Your task to perform on an android device: toggle notifications settings in the gmail app Image 0: 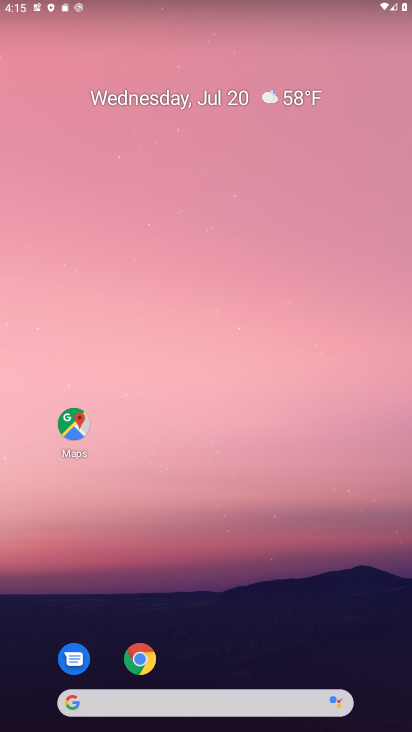
Step 0: drag from (221, 682) to (137, 67)
Your task to perform on an android device: toggle notifications settings in the gmail app Image 1: 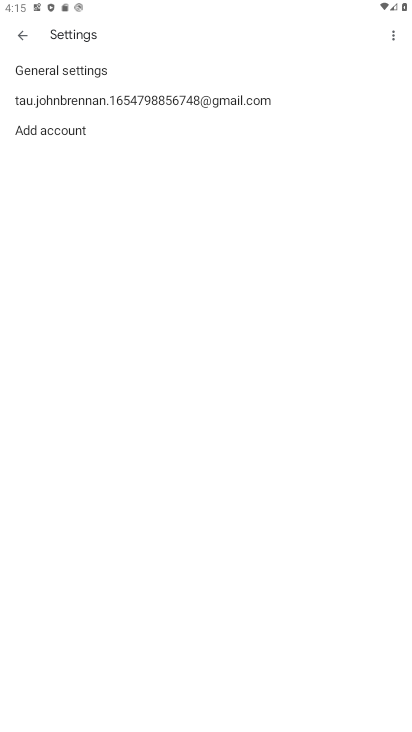
Step 1: click (75, 99)
Your task to perform on an android device: toggle notifications settings in the gmail app Image 2: 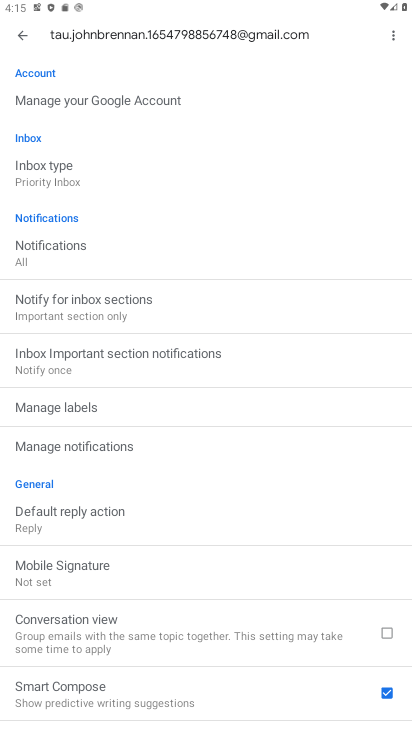
Step 2: drag from (97, 482) to (38, 205)
Your task to perform on an android device: toggle notifications settings in the gmail app Image 3: 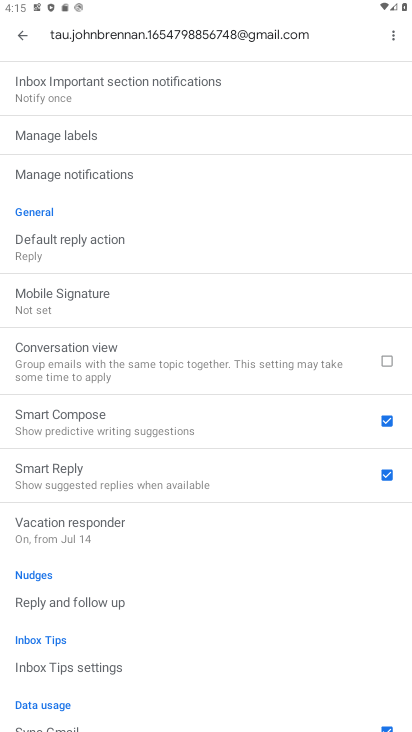
Step 3: drag from (123, 527) to (107, 244)
Your task to perform on an android device: toggle notifications settings in the gmail app Image 4: 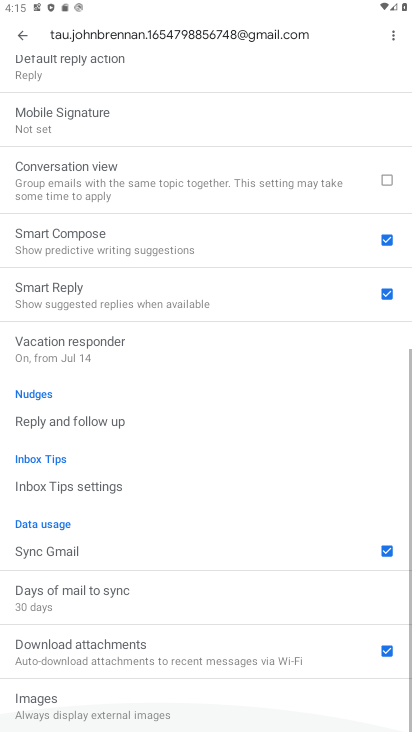
Step 4: drag from (142, 480) to (142, 234)
Your task to perform on an android device: toggle notifications settings in the gmail app Image 5: 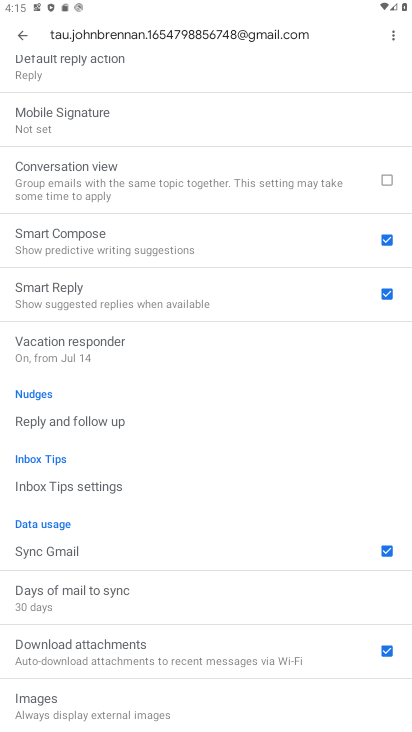
Step 5: drag from (77, 168) to (173, 483)
Your task to perform on an android device: toggle notifications settings in the gmail app Image 6: 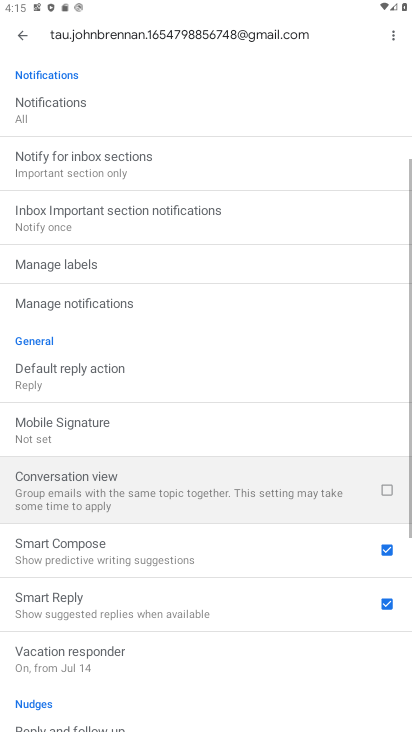
Step 6: drag from (94, 261) to (140, 460)
Your task to perform on an android device: toggle notifications settings in the gmail app Image 7: 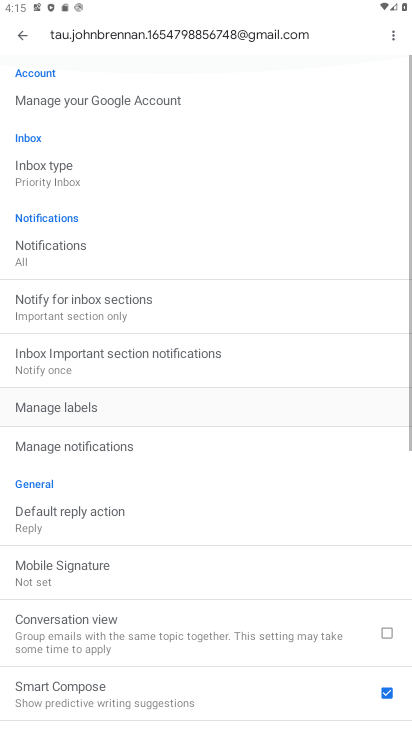
Step 7: drag from (91, 289) to (151, 482)
Your task to perform on an android device: toggle notifications settings in the gmail app Image 8: 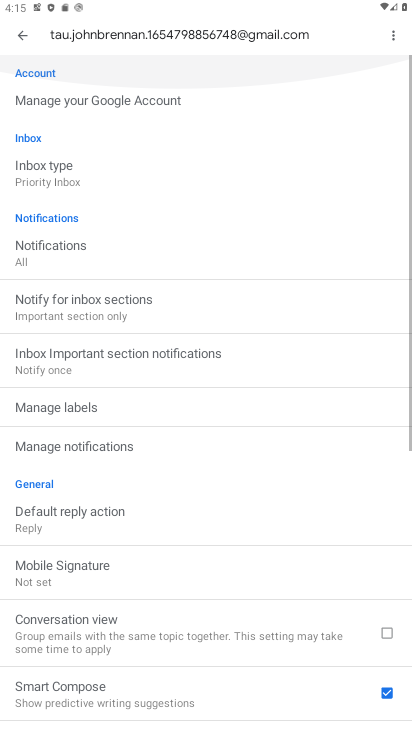
Step 8: drag from (109, 264) to (136, 460)
Your task to perform on an android device: toggle notifications settings in the gmail app Image 9: 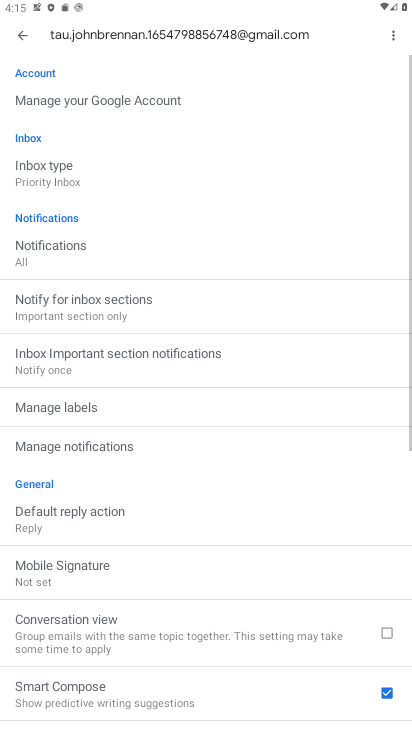
Step 9: click (23, 249)
Your task to perform on an android device: toggle notifications settings in the gmail app Image 10: 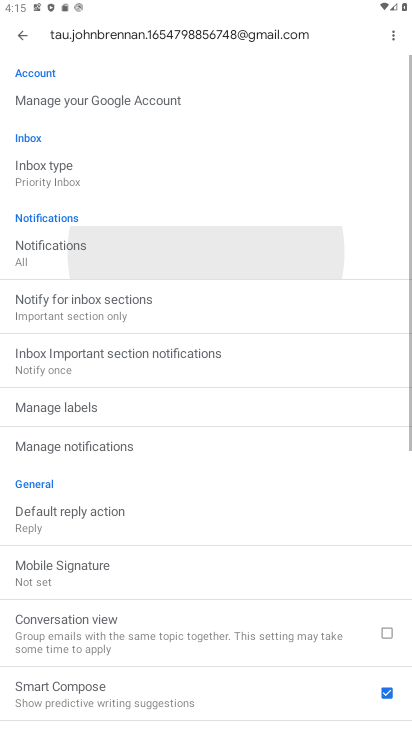
Step 10: click (27, 249)
Your task to perform on an android device: toggle notifications settings in the gmail app Image 11: 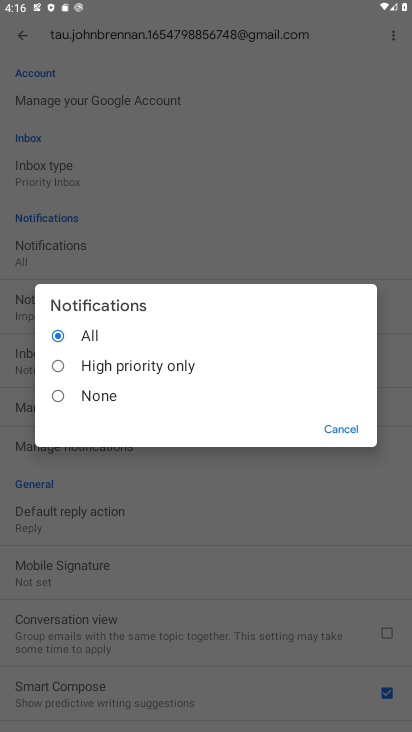
Step 11: click (58, 353)
Your task to perform on an android device: toggle notifications settings in the gmail app Image 12: 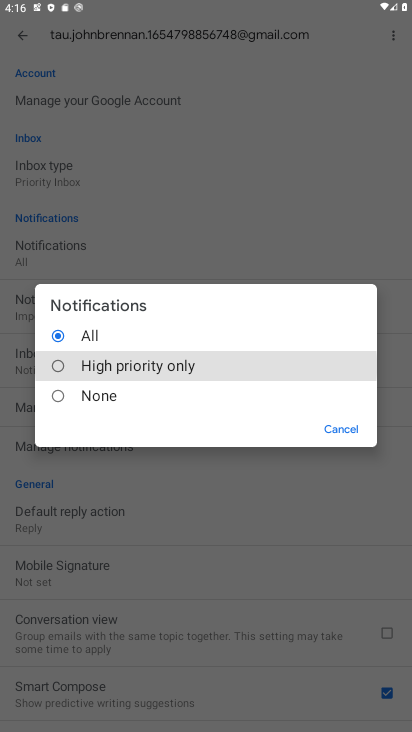
Step 12: click (58, 353)
Your task to perform on an android device: toggle notifications settings in the gmail app Image 13: 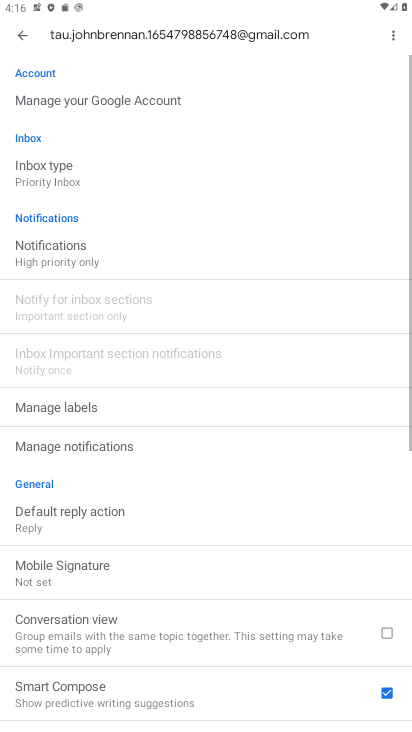
Step 13: click (58, 353)
Your task to perform on an android device: toggle notifications settings in the gmail app Image 14: 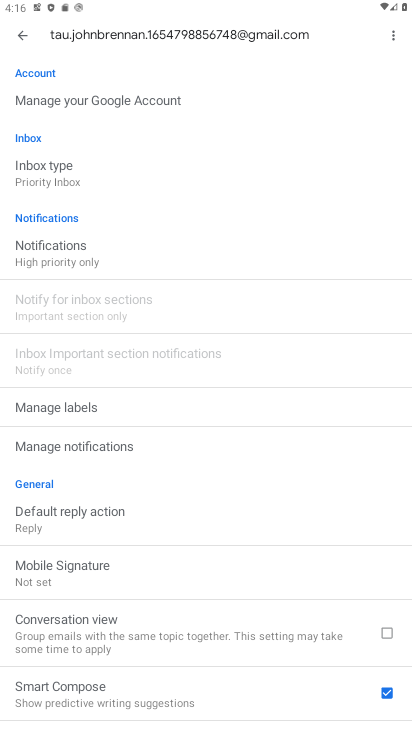
Step 14: task complete